Your task to perform on an android device: see creations saved in the google photos Image 0: 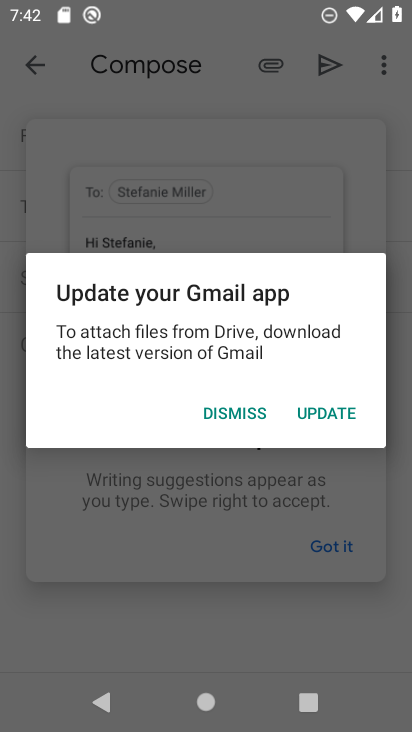
Step 0: press home button
Your task to perform on an android device: see creations saved in the google photos Image 1: 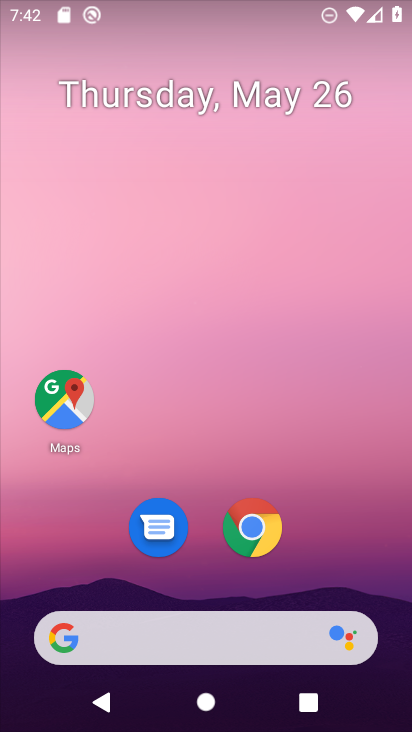
Step 1: drag from (79, 523) to (283, 158)
Your task to perform on an android device: see creations saved in the google photos Image 2: 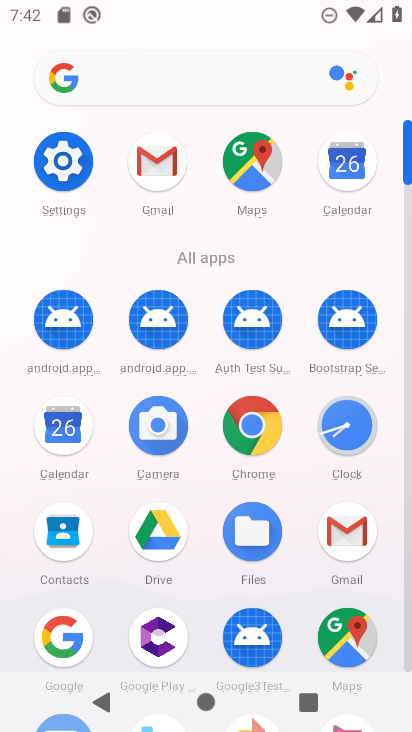
Step 2: drag from (19, 566) to (264, 284)
Your task to perform on an android device: see creations saved in the google photos Image 3: 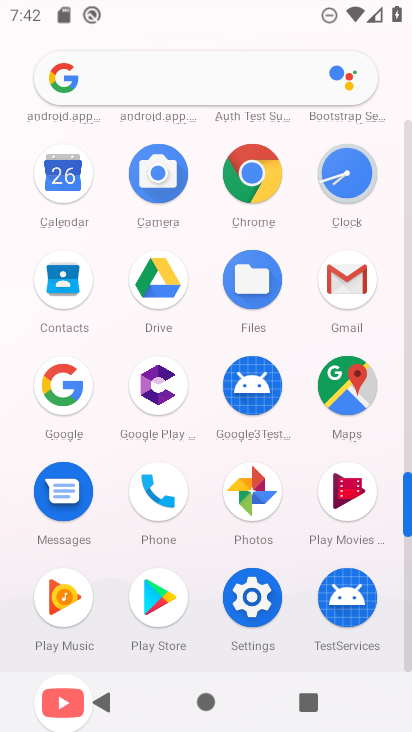
Step 3: click (247, 505)
Your task to perform on an android device: see creations saved in the google photos Image 4: 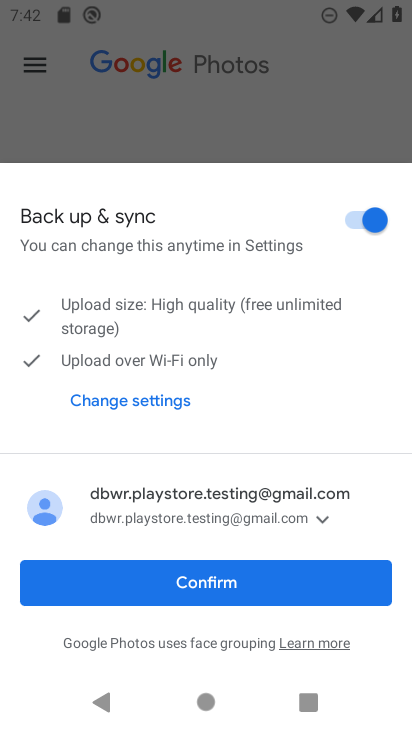
Step 4: click (177, 593)
Your task to perform on an android device: see creations saved in the google photos Image 5: 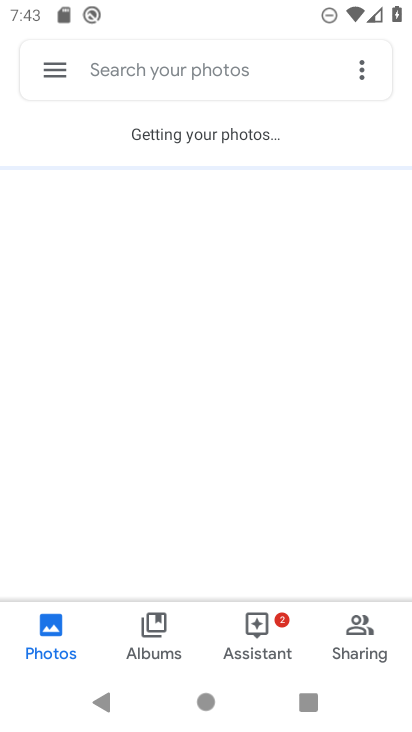
Step 5: click (109, 68)
Your task to perform on an android device: see creations saved in the google photos Image 6: 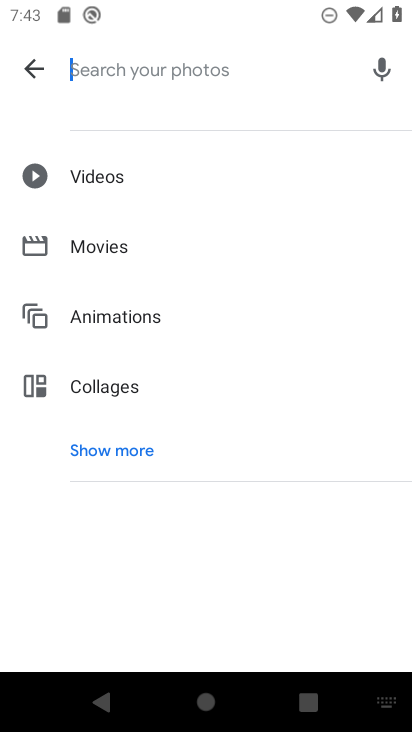
Step 6: click (117, 458)
Your task to perform on an android device: see creations saved in the google photos Image 7: 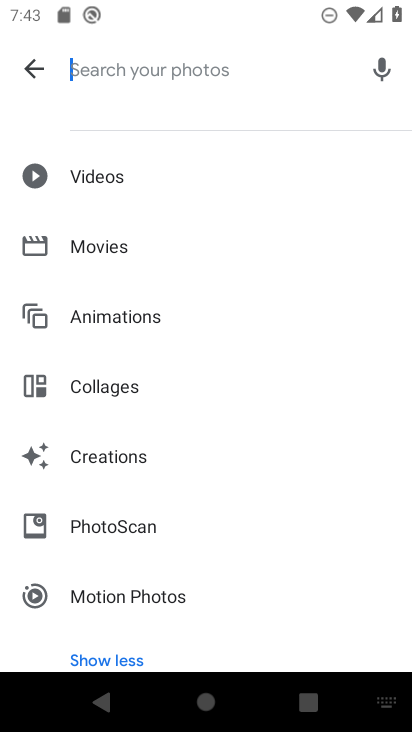
Step 7: click (135, 457)
Your task to perform on an android device: see creations saved in the google photos Image 8: 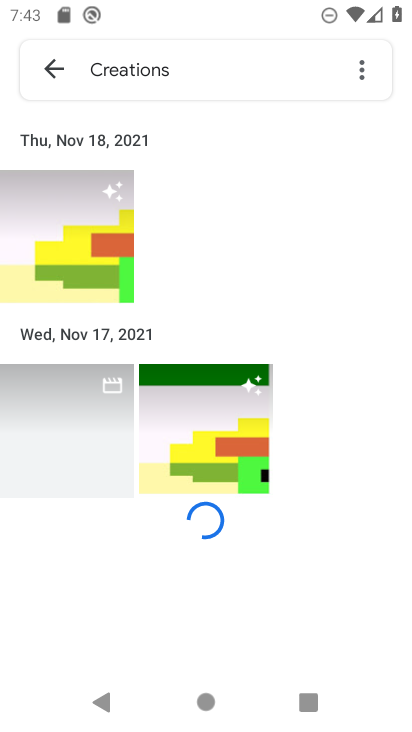
Step 8: task complete